Your task to perform on an android device: Open the map Image 0: 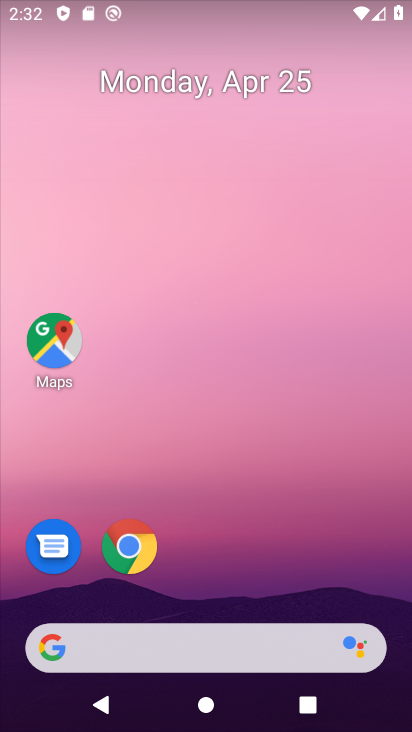
Step 0: drag from (296, 128) to (313, 47)
Your task to perform on an android device: Open the map Image 1: 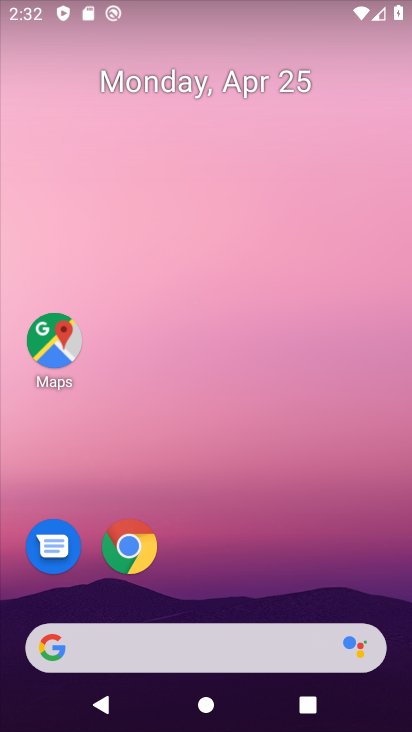
Step 1: click (62, 344)
Your task to perform on an android device: Open the map Image 2: 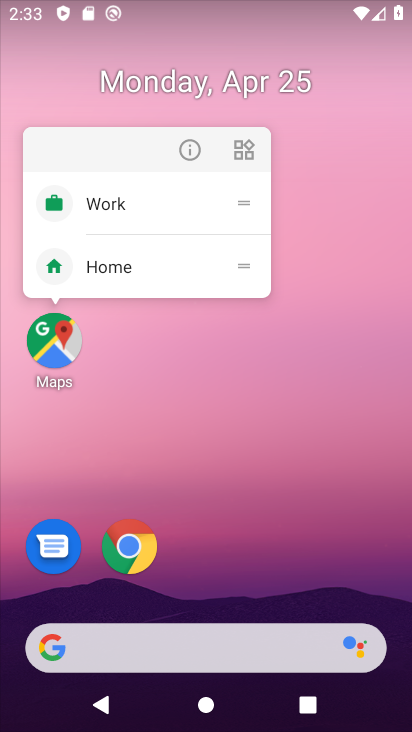
Step 2: click (63, 344)
Your task to perform on an android device: Open the map Image 3: 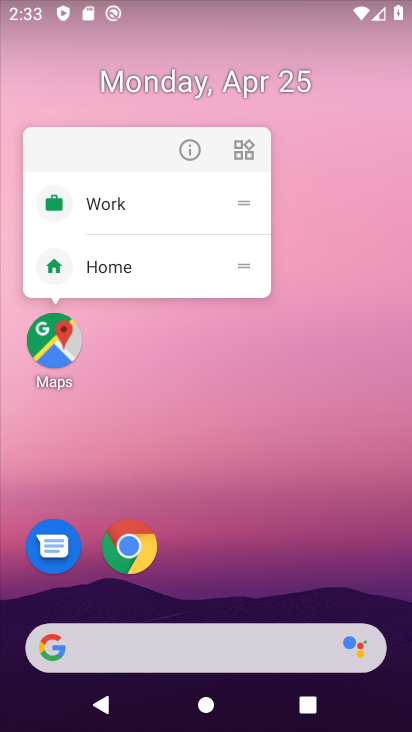
Step 3: click (59, 339)
Your task to perform on an android device: Open the map Image 4: 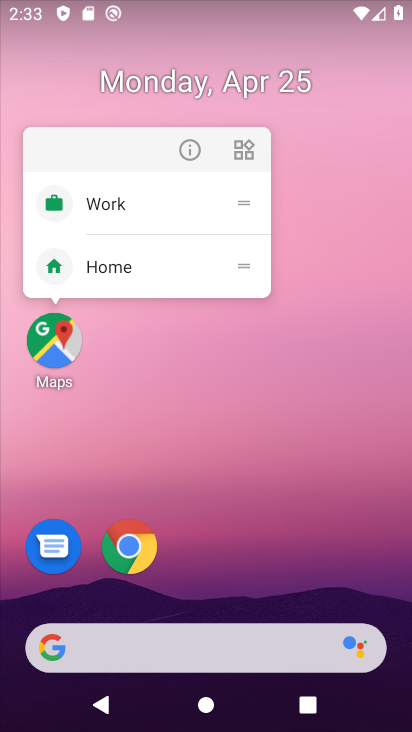
Step 4: click (69, 344)
Your task to perform on an android device: Open the map Image 5: 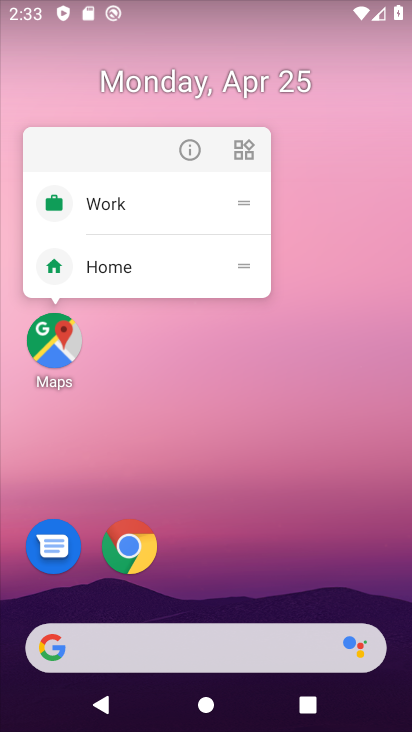
Step 5: click (69, 344)
Your task to perform on an android device: Open the map Image 6: 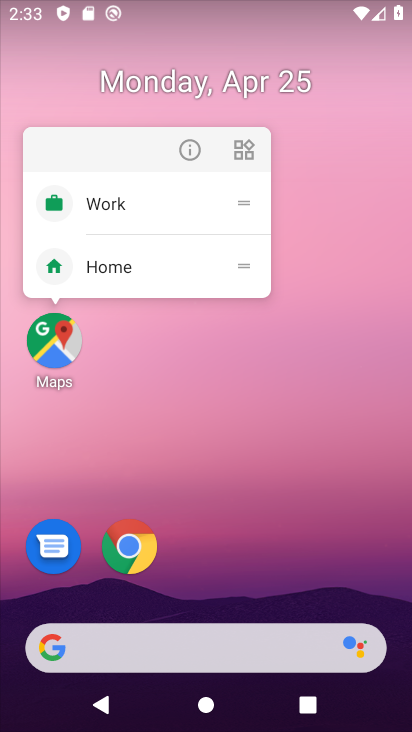
Step 6: click (56, 346)
Your task to perform on an android device: Open the map Image 7: 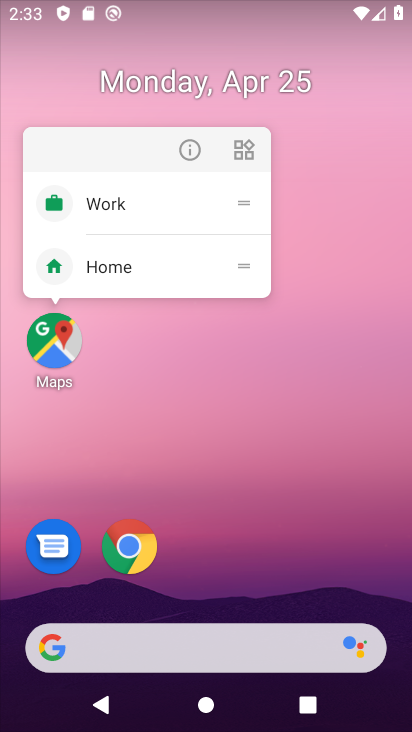
Step 7: click (56, 346)
Your task to perform on an android device: Open the map Image 8: 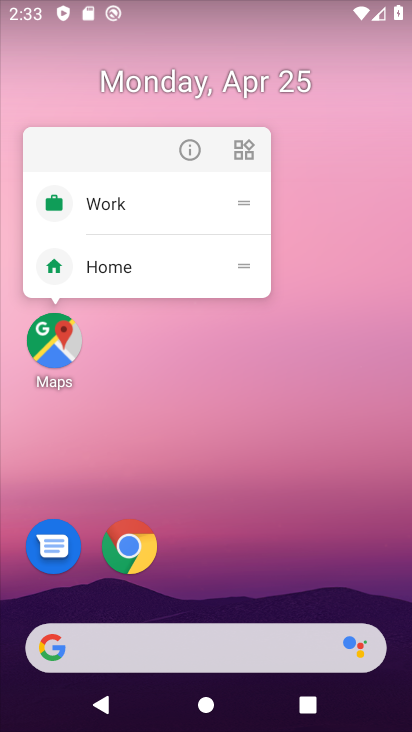
Step 8: click (58, 340)
Your task to perform on an android device: Open the map Image 9: 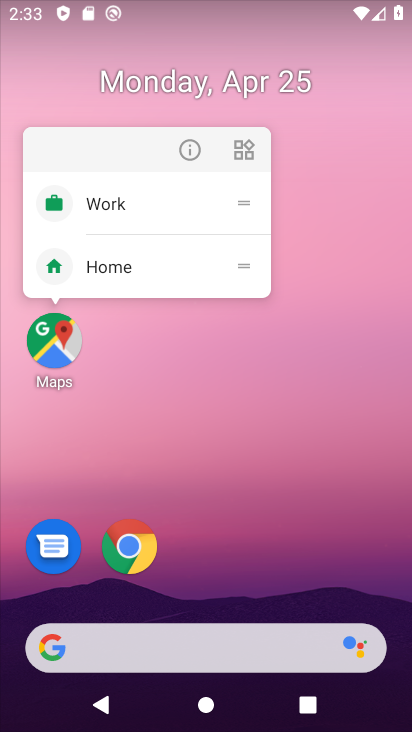
Step 9: click (53, 343)
Your task to perform on an android device: Open the map Image 10: 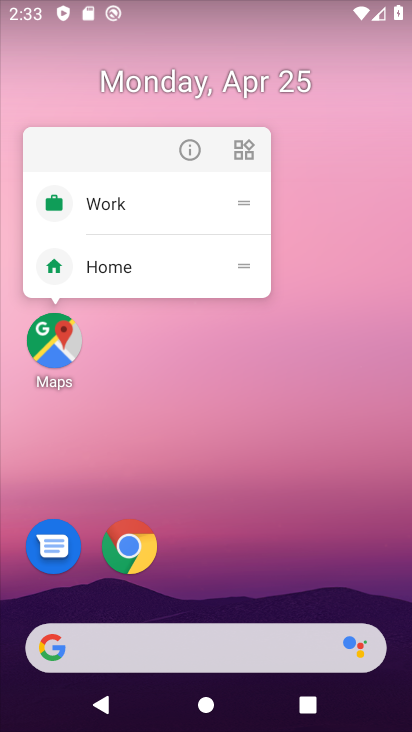
Step 10: click (69, 351)
Your task to perform on an android device: Open the map Image 11: 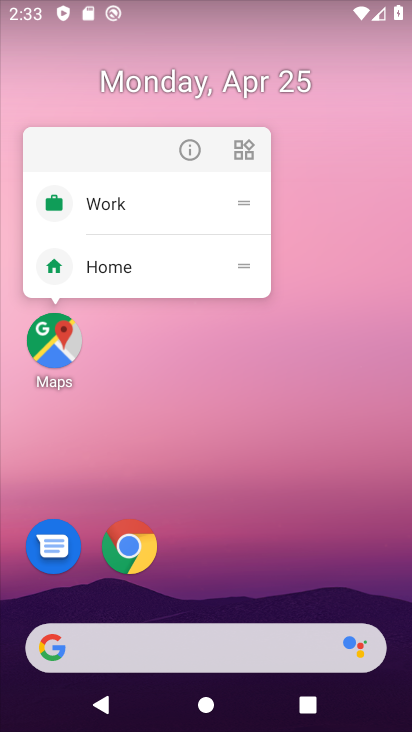
Step 11: click (66, 348)
Your task to perform on an android device: Open the map Image 12: 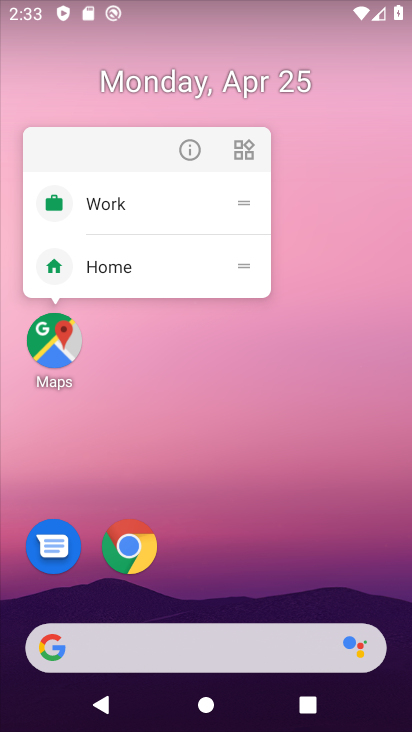
Step 12: click (62, 340)
Your task to perform on an android device: Open the map Image 13: 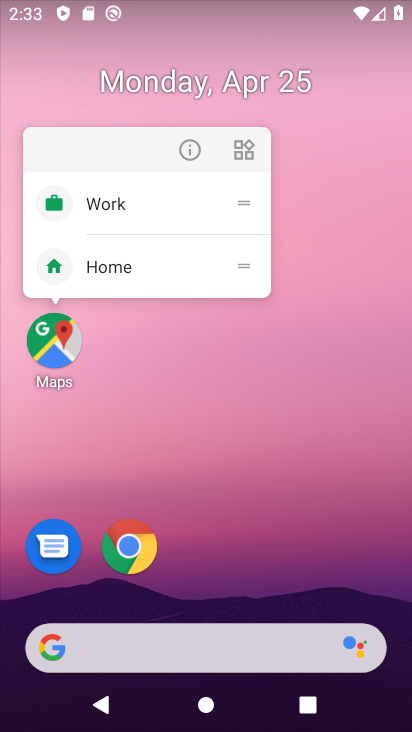
Step 13: click (54, 336)
Your task to perform on an android device: Open the map Image 14: 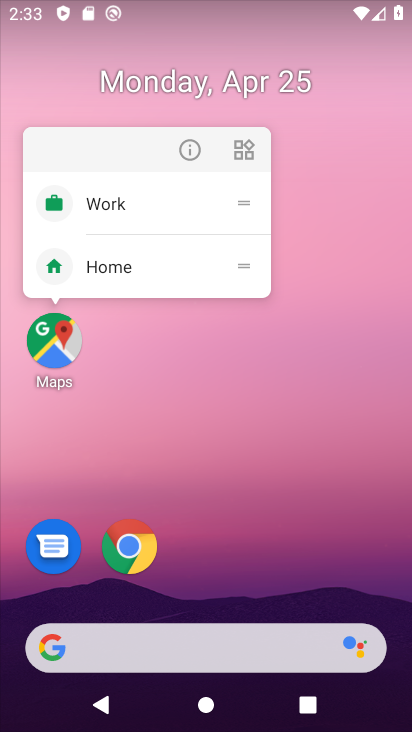
Step 14: click (54, 336)
Your task to perform on an android device: Open the map Image 15: 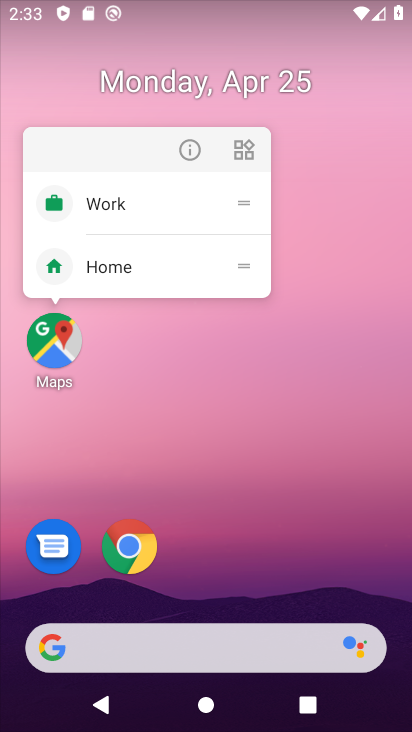
Step 15: click (49, 345)
Your task to perform on an android device: Open the map Image 16: 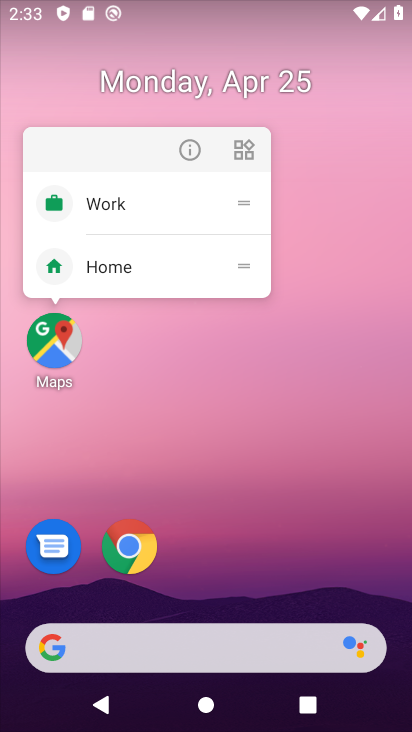
Step 16: click (48, 346)
Your task to perform on an android device: Open the map Image 17: 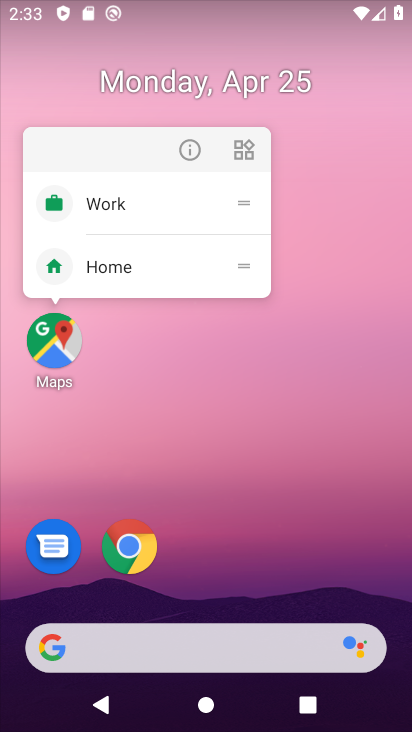
Step 17: click (45, 338)
Your task to perform on an android device: Open the map Image 18: 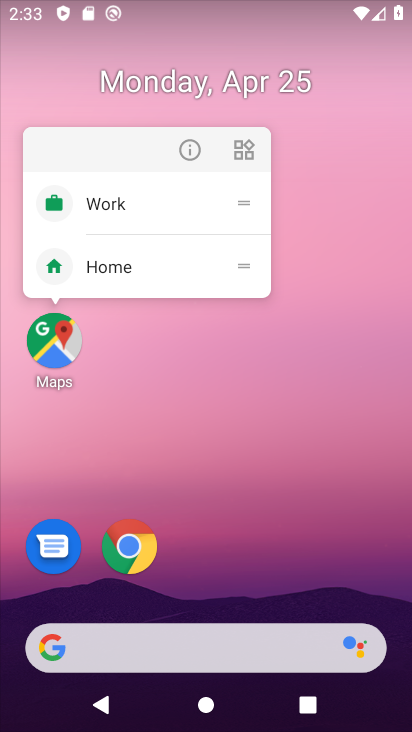
Step 18: click (56, 341)
Your task to perform on an android device: Open the map Image 19: 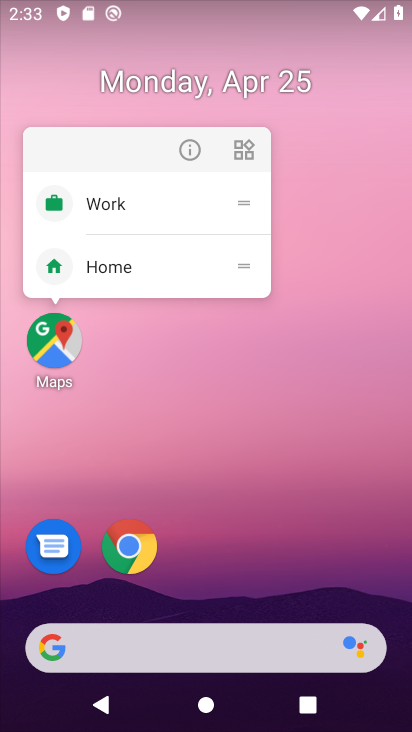
Step 19: click (60, 350)
Your task to perform on an android device: Open the map Image 20: 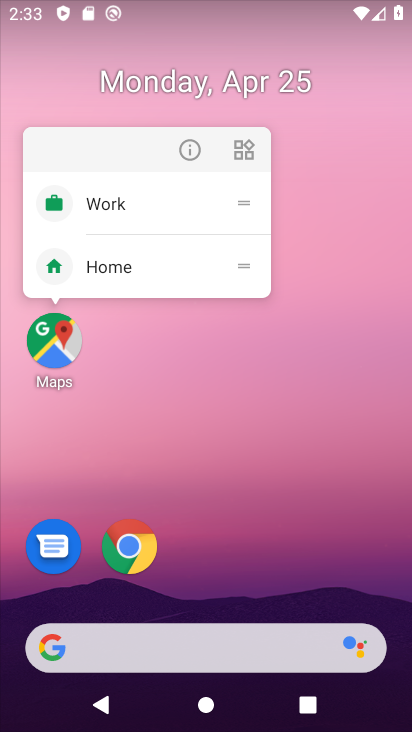
Step 20: drag from (274, 630) to (396, 29)
Your task to perform on an android device: Open the map Image 21: 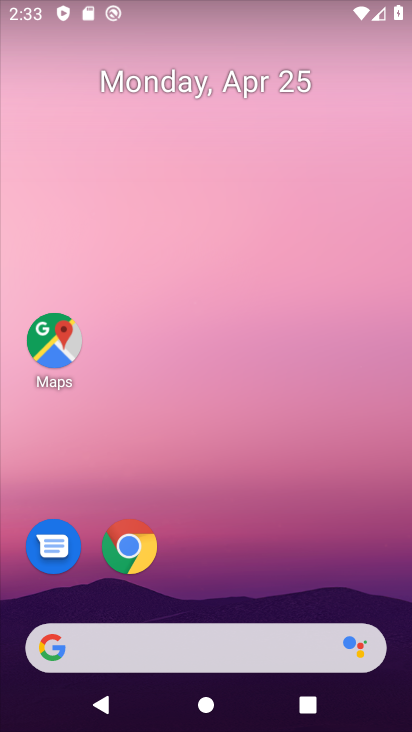
Step 21: drag from (238, 621) to (385, 1)
Your task to perform on an android device: Open the map Image 22: 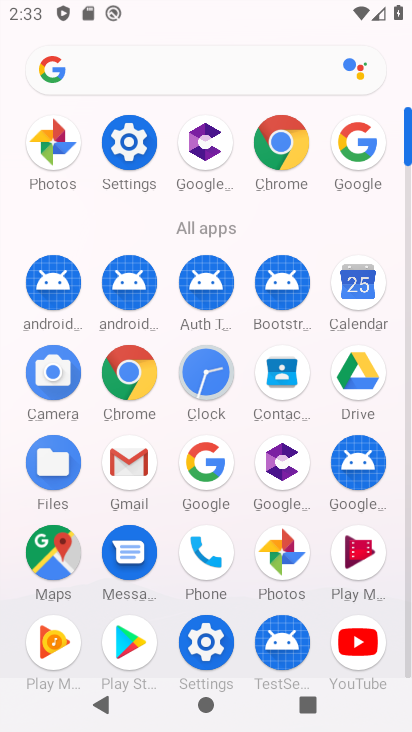
Step 22: click (39, 546)
Your task to perform on an android device: Open the map Image 23: 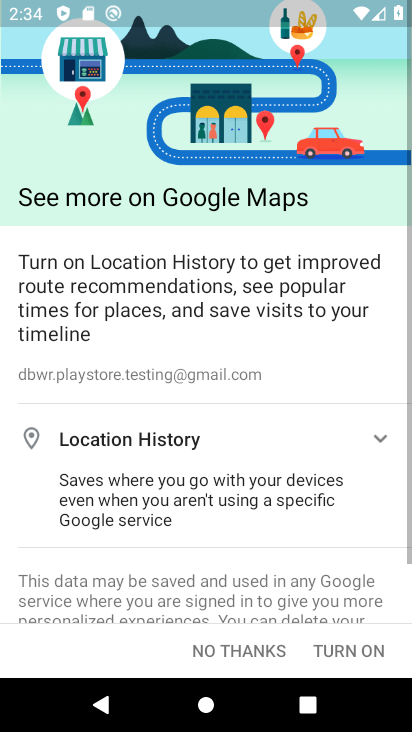
Step 23: task complete